Your task to perform on an android device: Go to display settings Image 0: 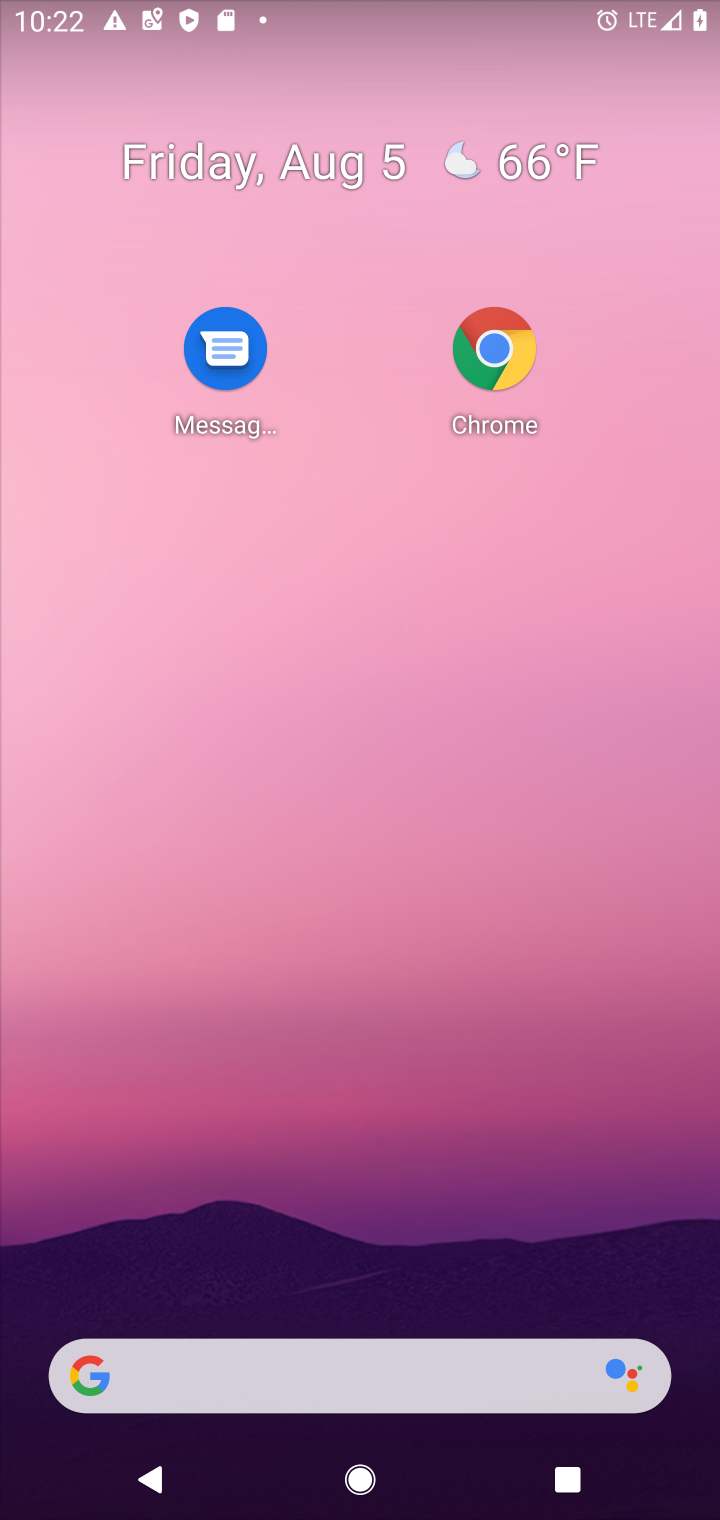
Step 0: press home button
Your task to perform on an android device: Go to display settings Image 1: 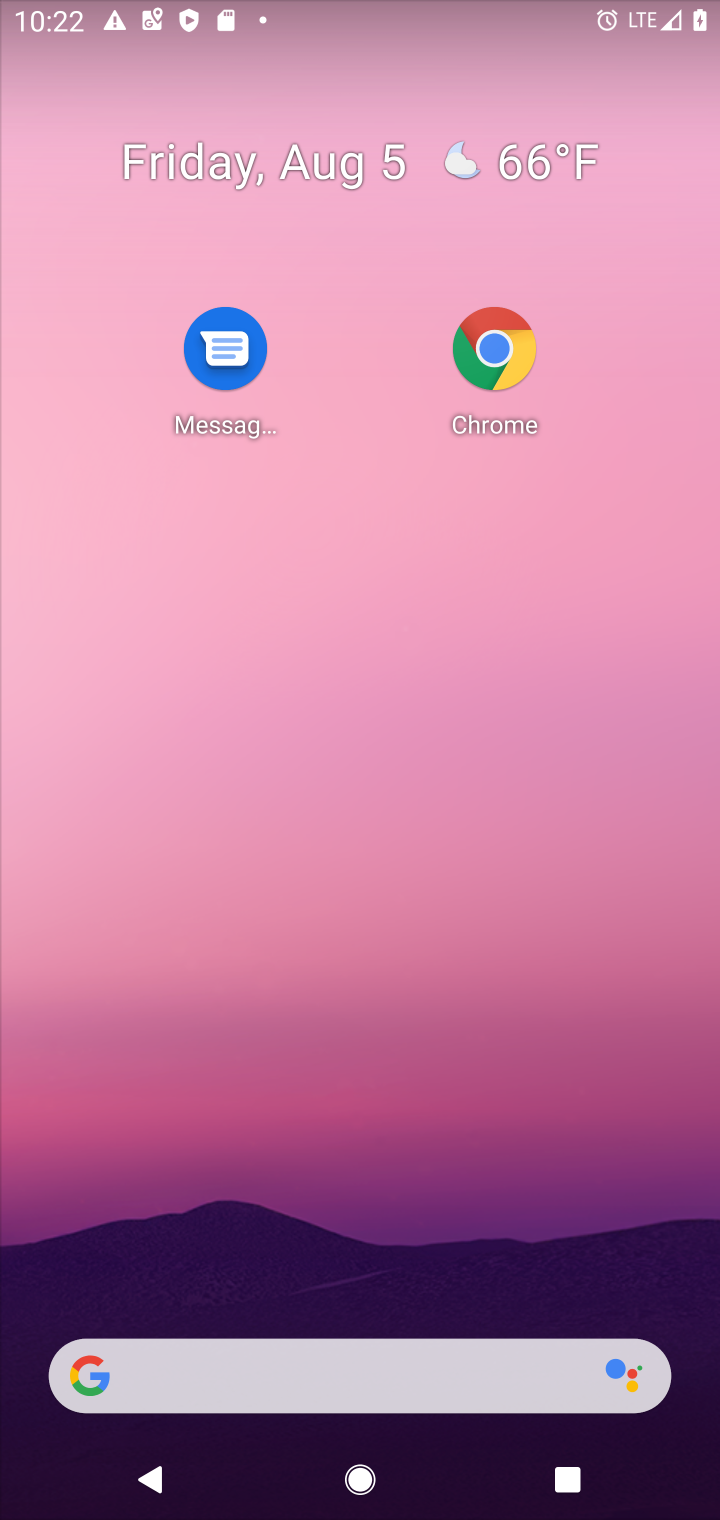
Step 1: drag from (430, 1421) to (270, 311)
Your task to perform on an android device: Go to display settings Image 2: 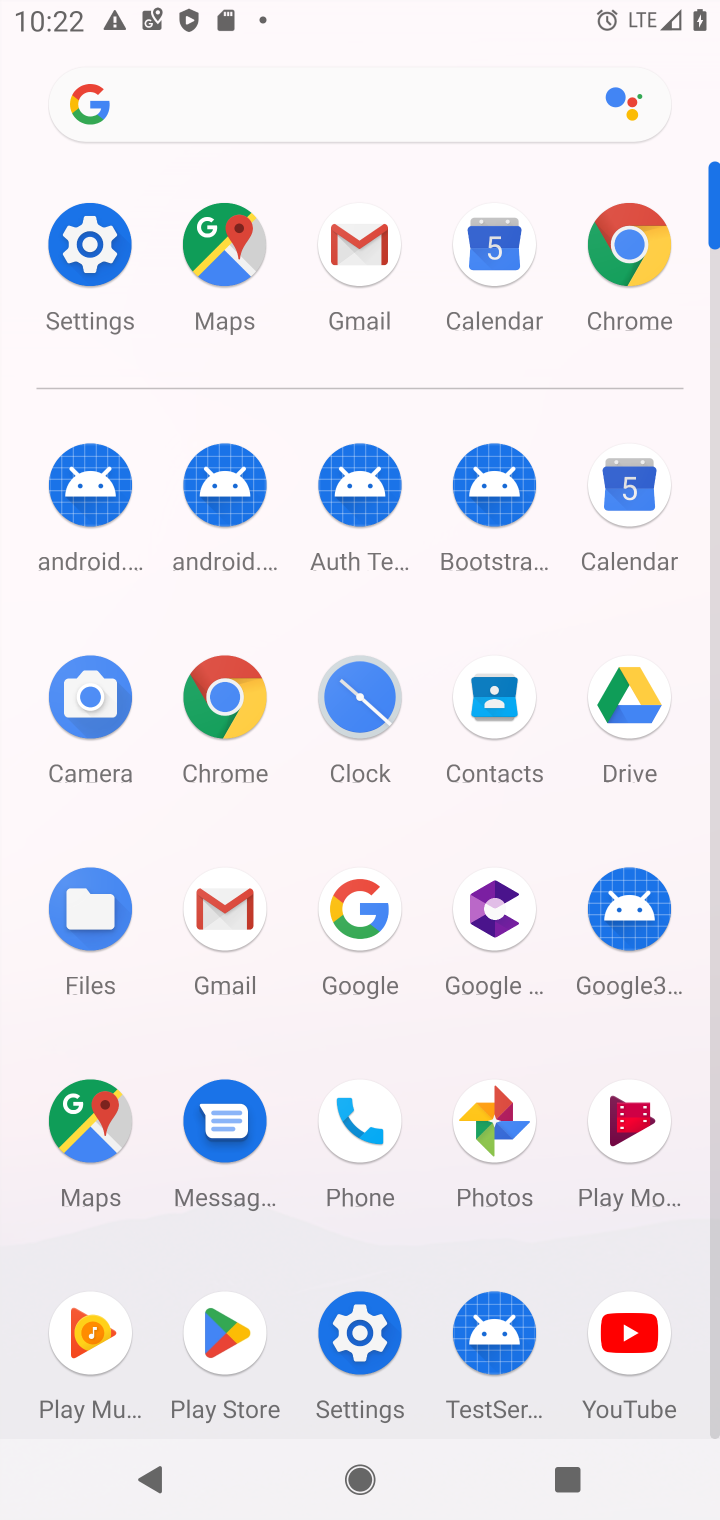
Step 2: click (86, 233)
Your task to perform on an android device: Go to display settings Image 3: 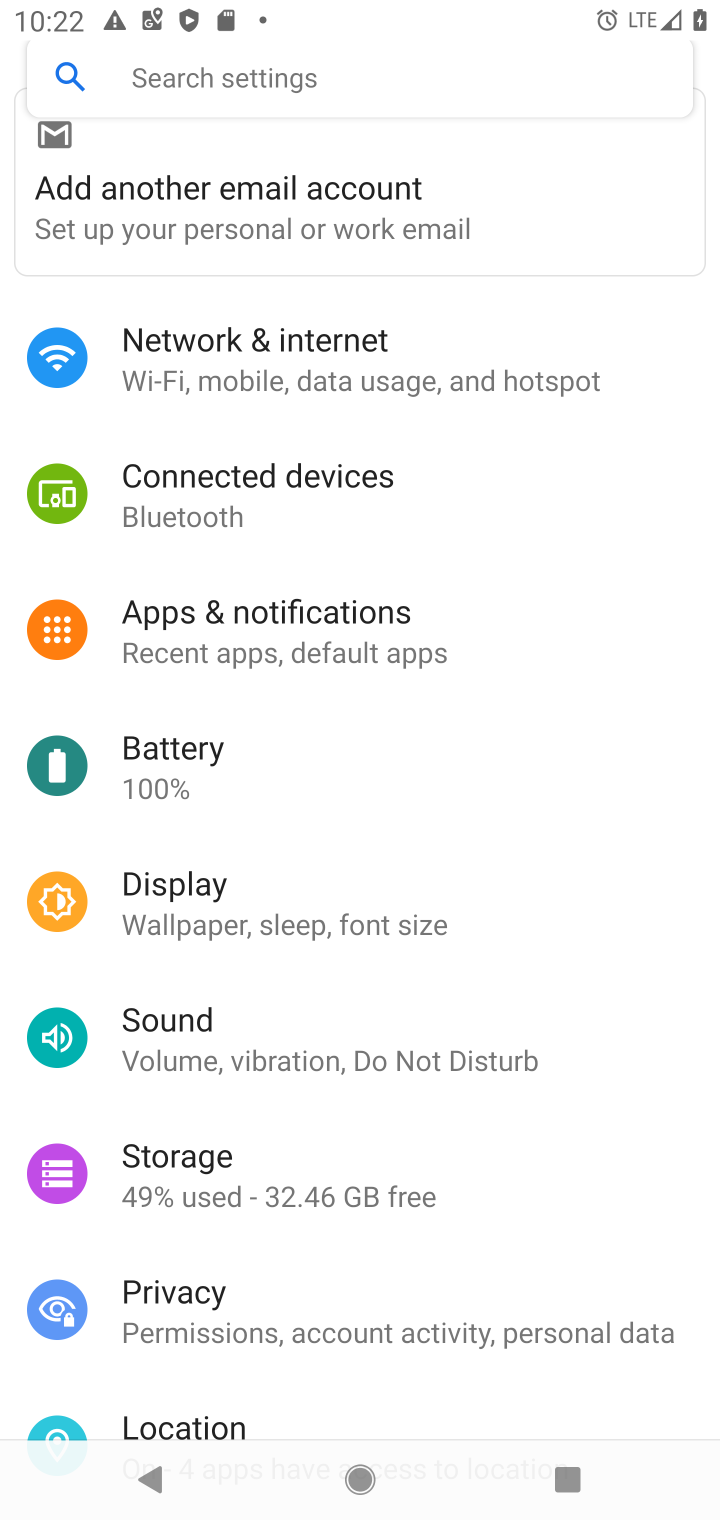
Step 3: click (176, 888)
Your task to perform on an android device: Go to display settings Image 4: 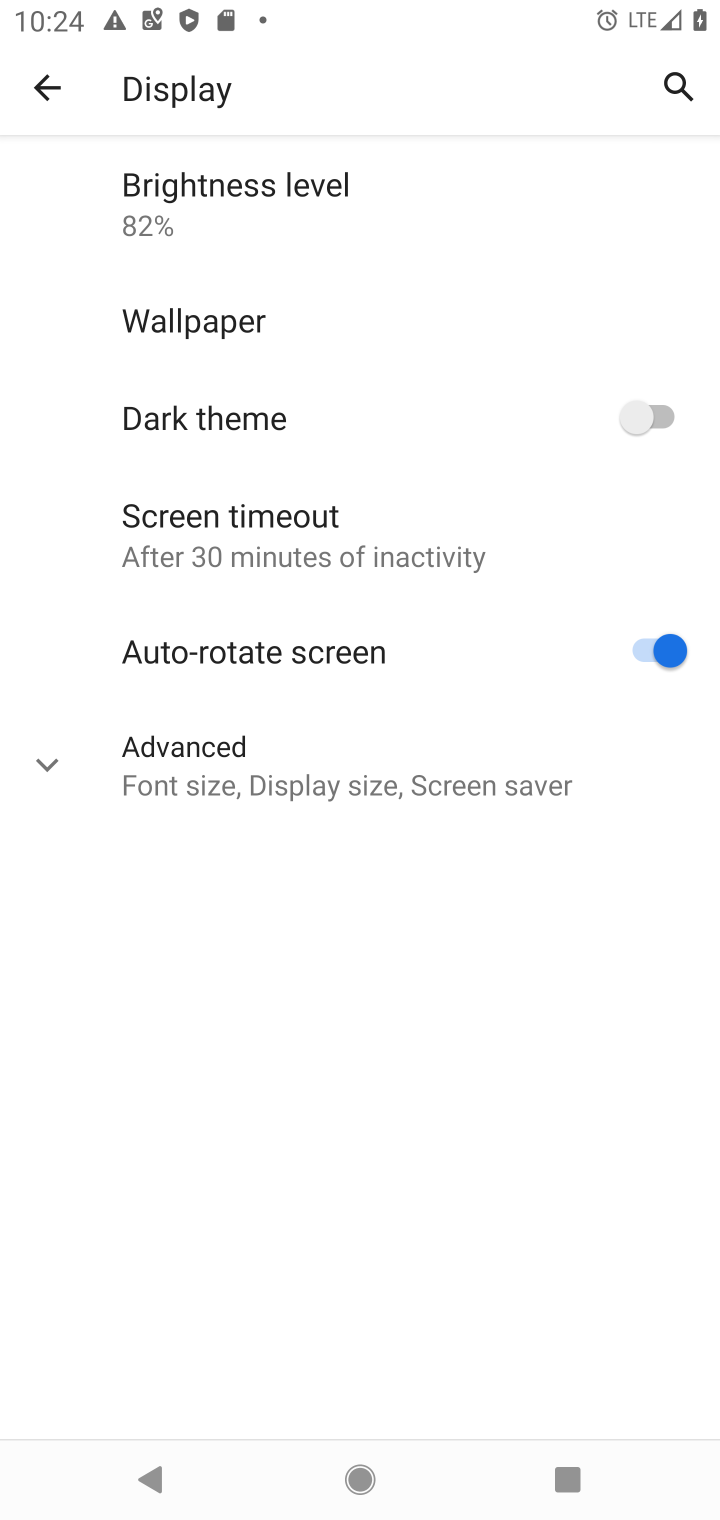
Step 4: task complete